Your task to perform on an android device: turn on translation in the chrome app Image 0: 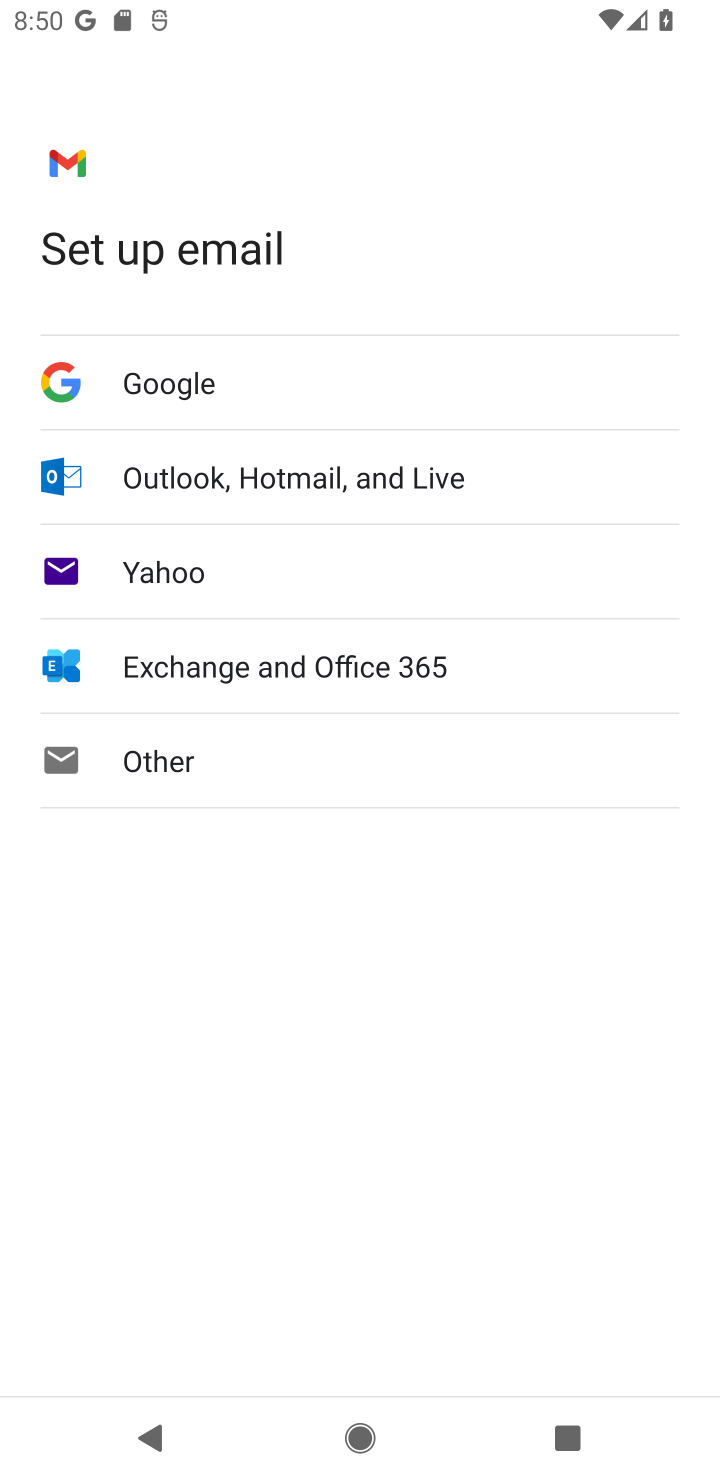
Step 0: press home button
Your task to perform on an android device: turn on translation in the chrome app Image 1: 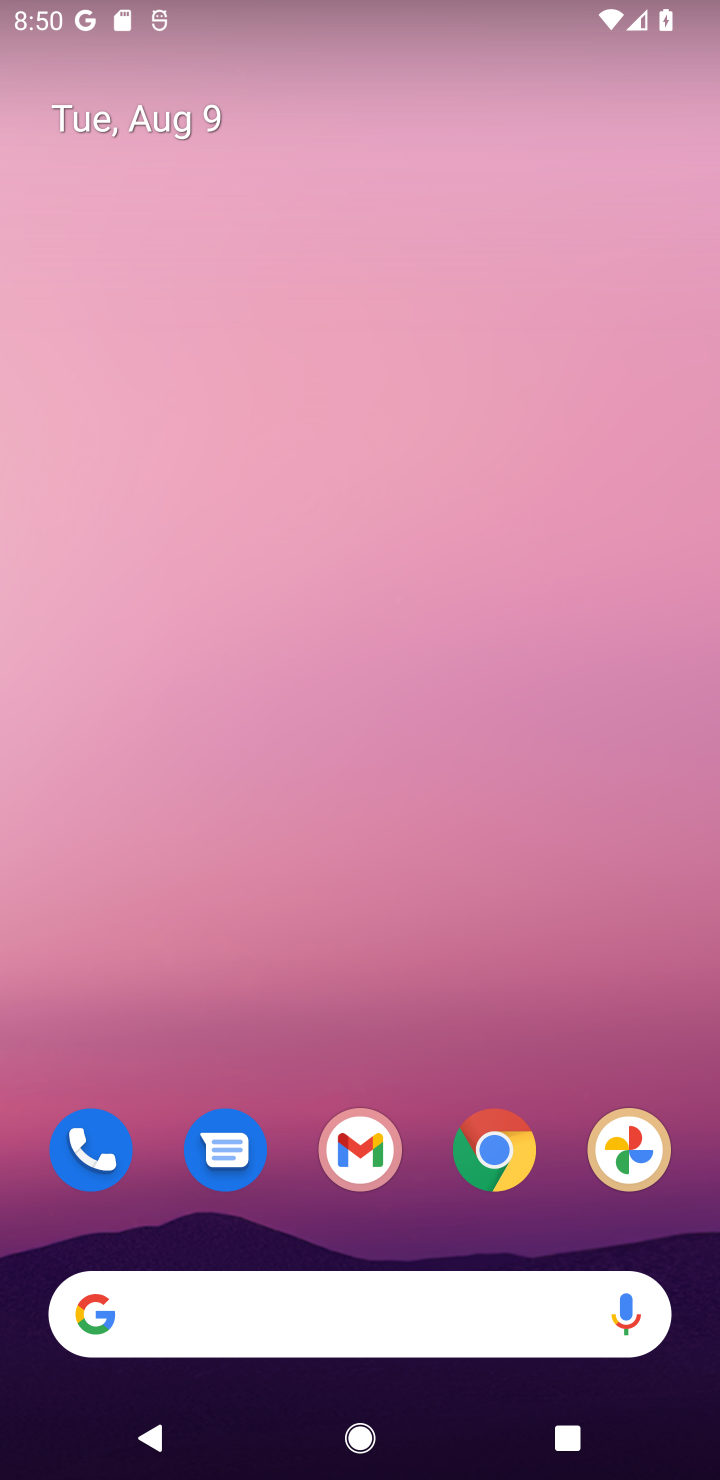
Step 1: click (488, 1170)
Your task to perform on an android device: turn on translation in the chrome app Image 2: 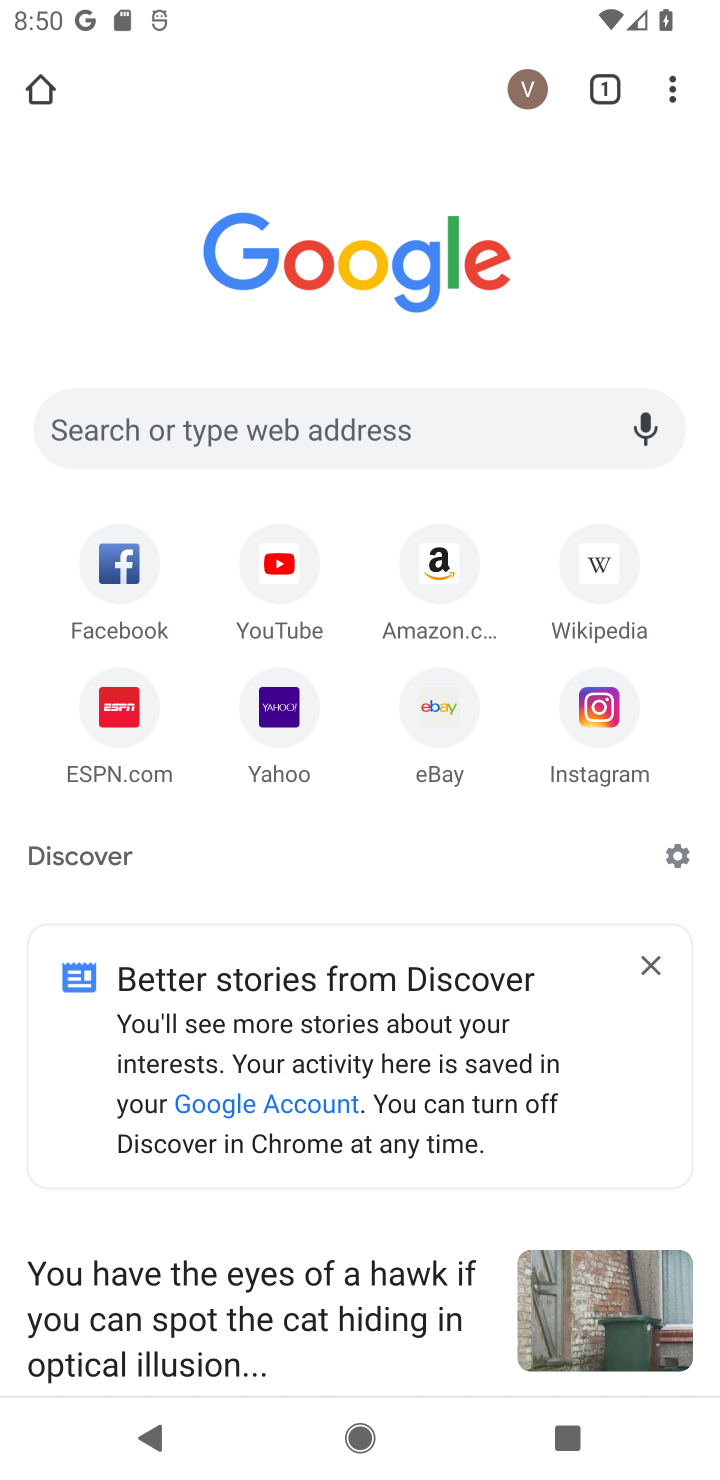
Step 2: click (672, 89)
Your task to perform on an android device: turn on translation in the chrome app Image 3: 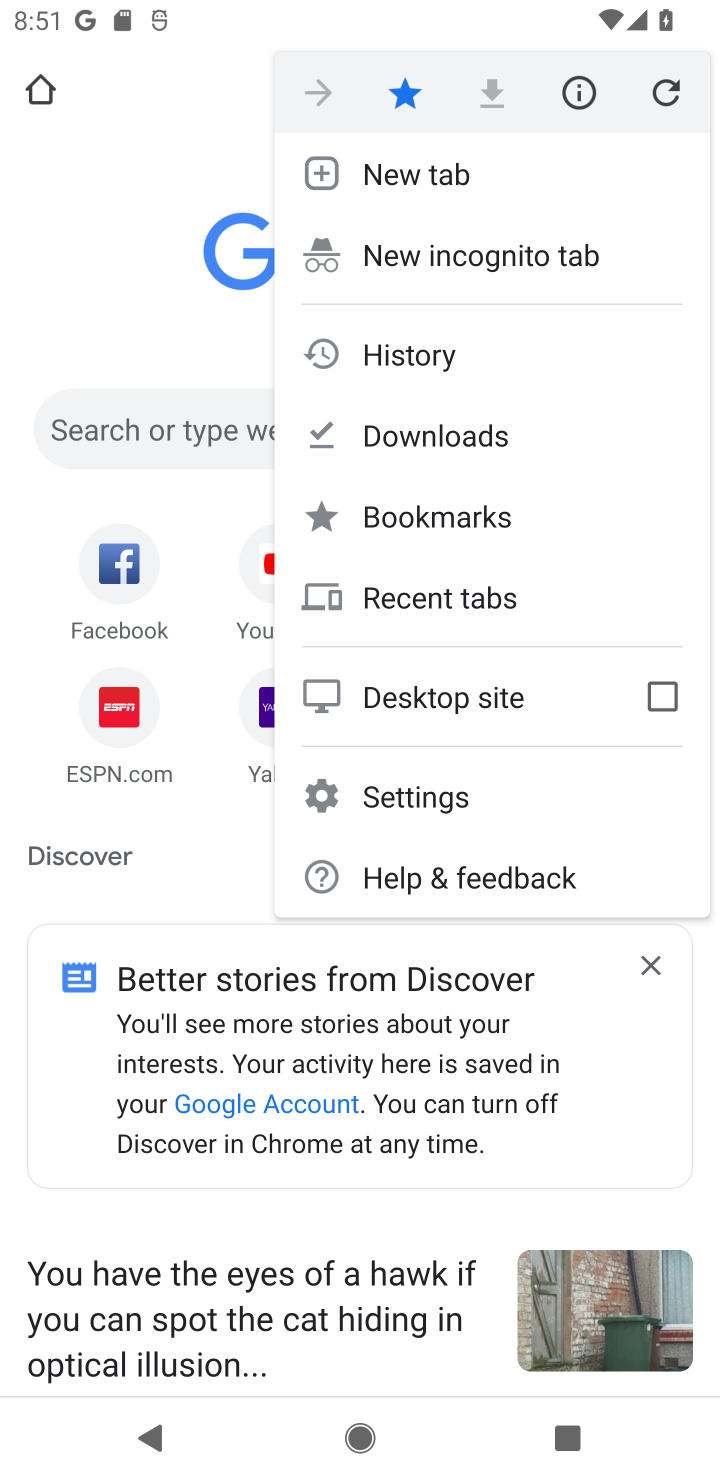
Step 3: task complete